Your task to perform on an android device: turn off notifications settings in the gmail app Image 0: 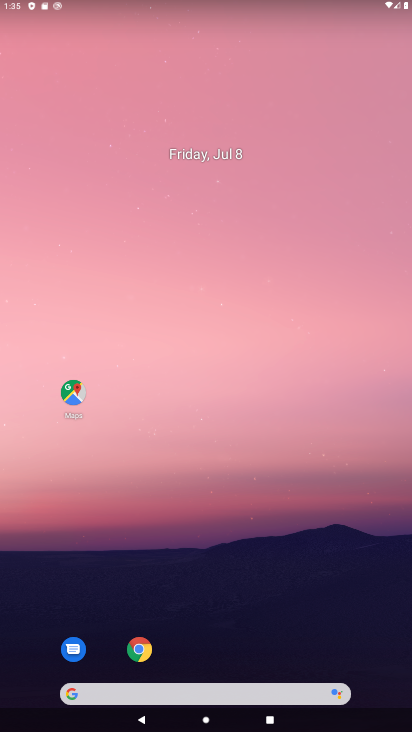
Step 0: drag from (246, 582) to (188, 130)
Your task to perform on an android device: turn off notifications settings in the gmail app Image 1: 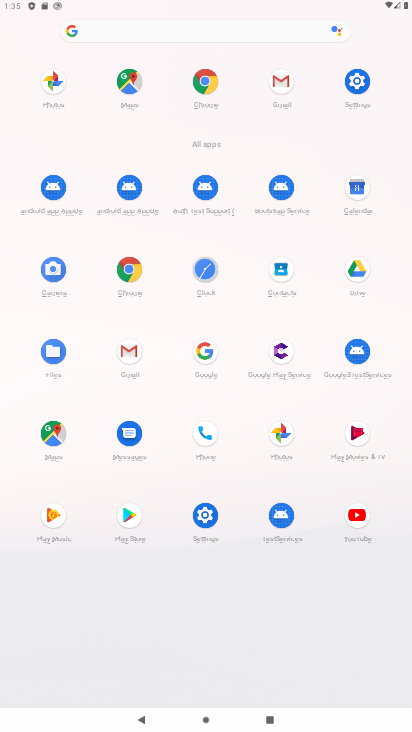
Step 1: click (282, 79)
Your task to perform on an android device: turn off notifications settings in the gmail app Image 2: 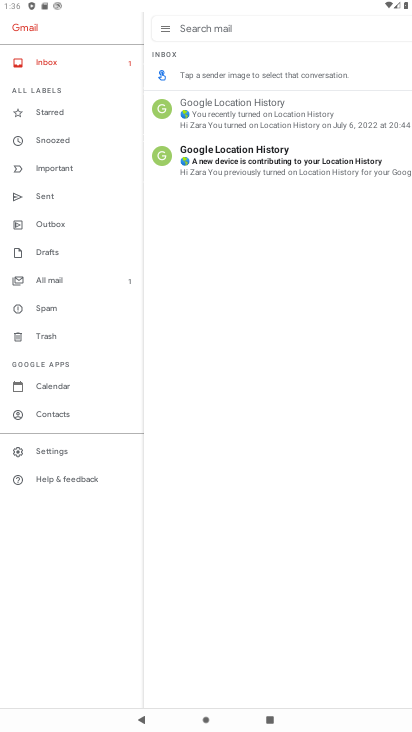
Step 2: click (58, 452)
Your task to perform on an android device: turn off notifications settings in the gmail app Image 3: 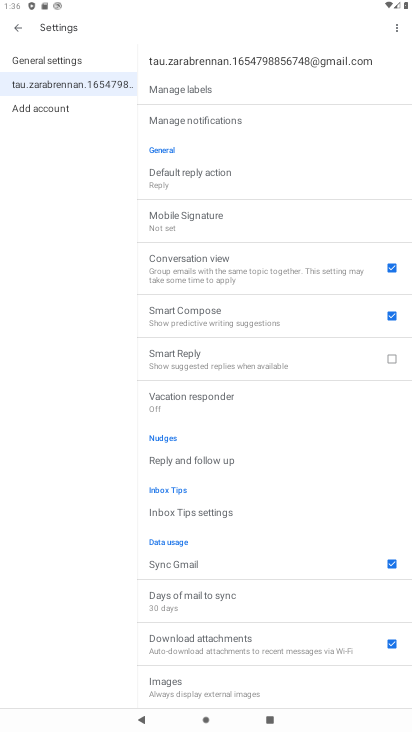
Step 3: drag from (218, 180) to (252, 631)
Your task to perform on an android device: turn off notifications settings in the gmail app Image 4: 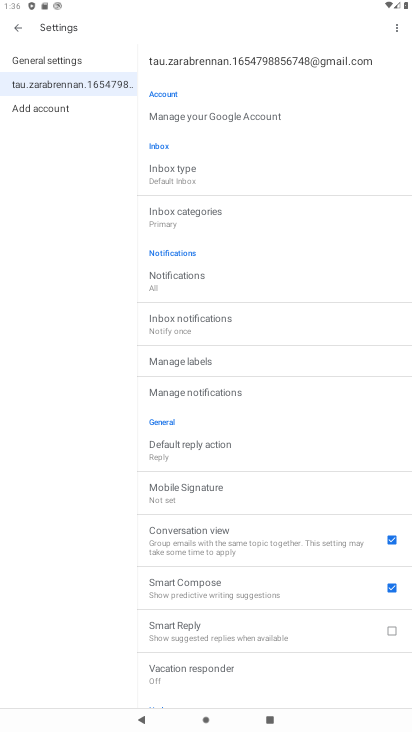
Step 4: drag from (220, 174) to (261, 543)
Your task to perform on an android device: turn off notifications settings in the gmail app Image 5: 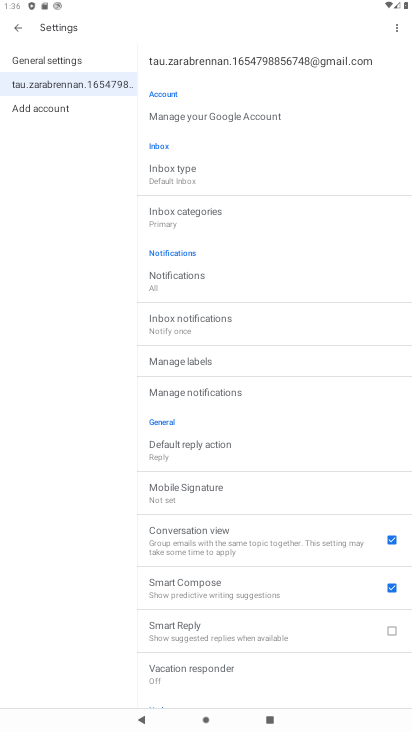
Step 5: click (202, 387)
Your task to perform on an android device: turn off notifications settings in the gmail app Image 6: 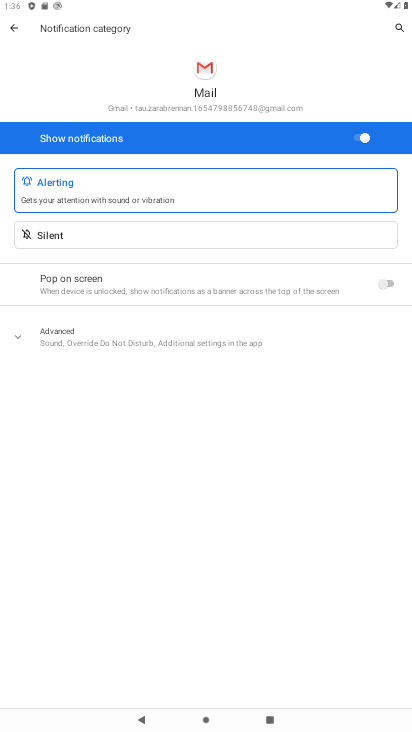
Step 6: click (359, 151)
Your task to perform on an android device: turn off notifications settings in the gmail app Image 7: 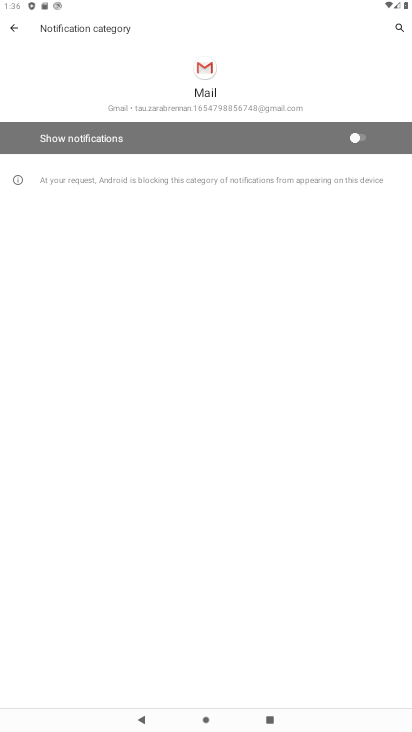
Step 7: task complete